Your task to perform on an android device: Search for razer deathadder on newegg.com, select the first entry, add it to the cart, then select checkout. Image 0: 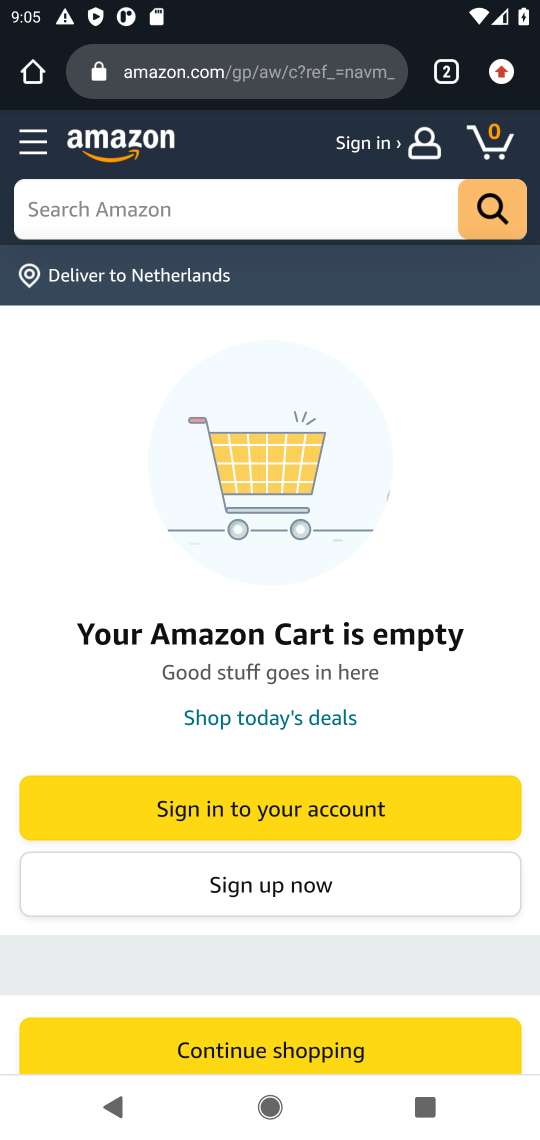
Step 0: click (200, 77)
Your task to perform on an android device: Search for razer deathadder on newegg.com, select the first entry, add it to the cart, then select checkout. Image 1: 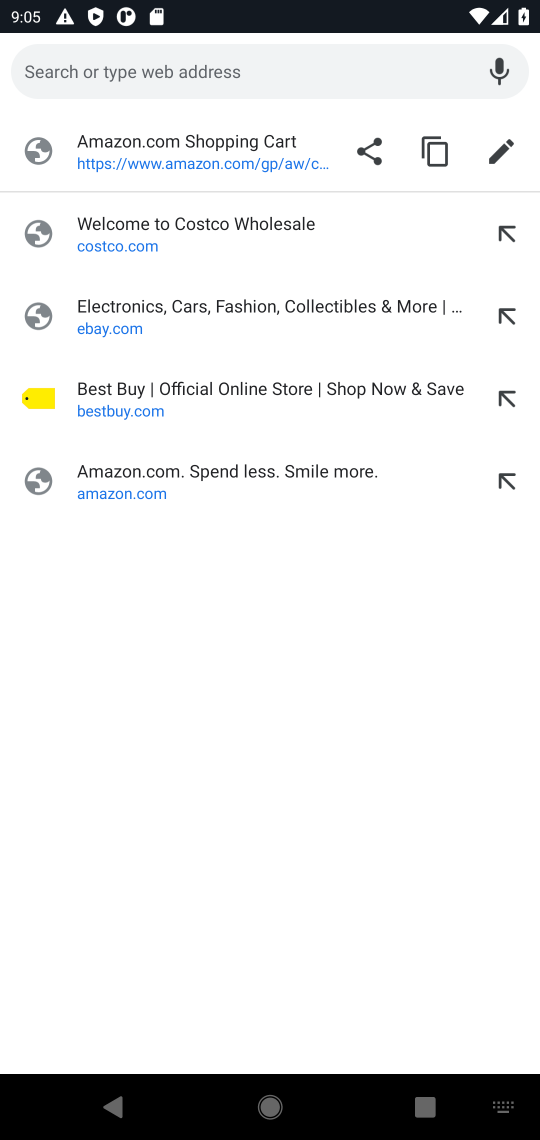
Step 1: type "newegg.com"
Your task to perform on an android device: Search for razer deathadder on newegg.com, select the first entry, add it to the cart, then select checkout. Image 2: 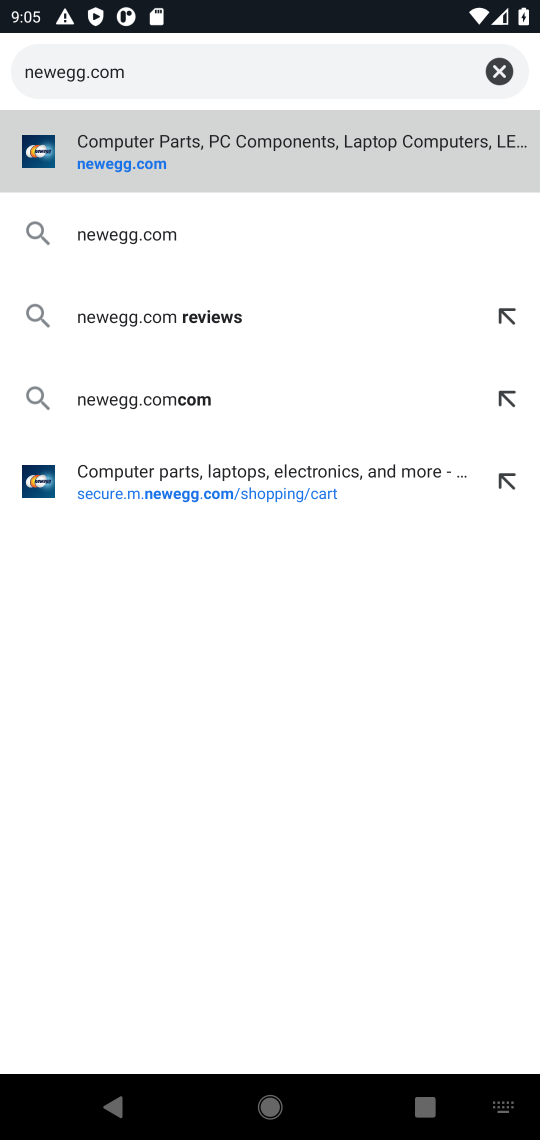
Step 2: click (100, 172)
Your task to perform on an android device: Search for razer deathadder on newegg.com, select the first entry, add it to the cart, then select checkout. Image 3: 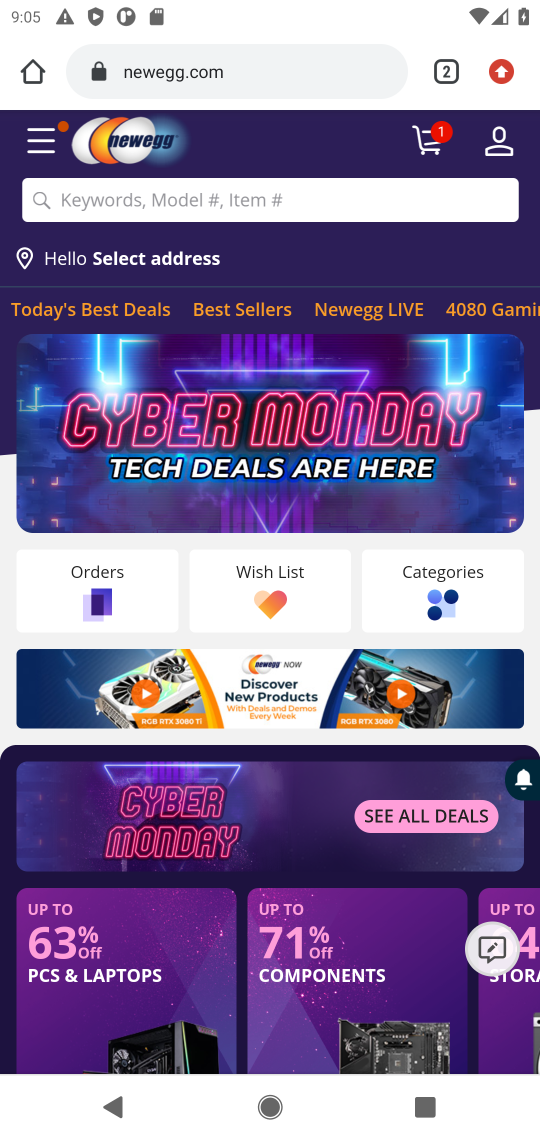
Step 3: click (129, 211)
Your task to perform on an android device: Search for razer deathadder on newegg.com, select the first entry, add it to the cart, then select checkout. Image 4: 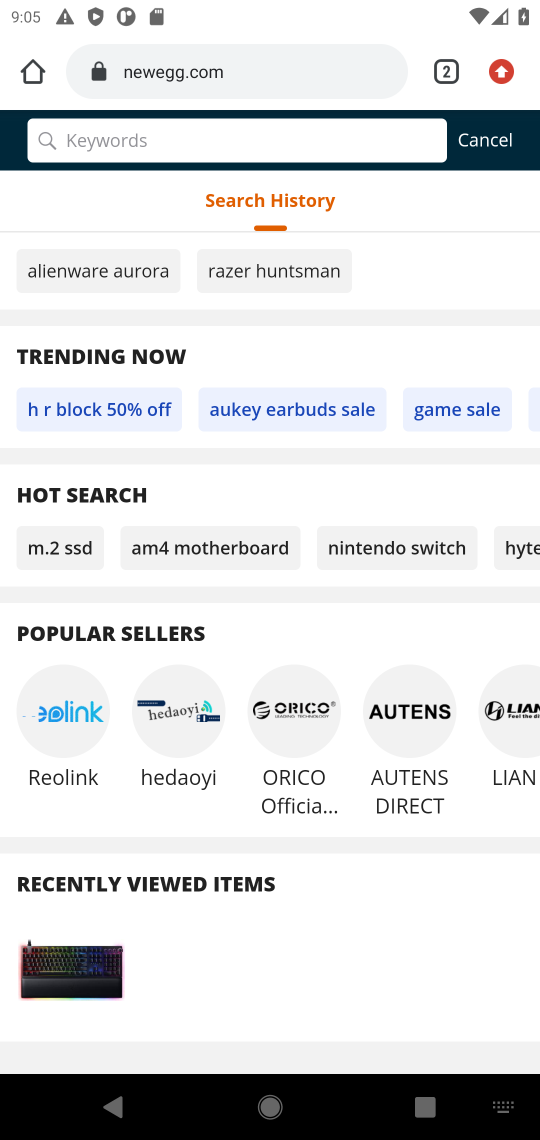
Step 4: type "razer deathadder"
Your task to perform on an android device: Search for razer deathadder on newegg.com, select the first entry, add it to the cart, then select checkout. Image 5: 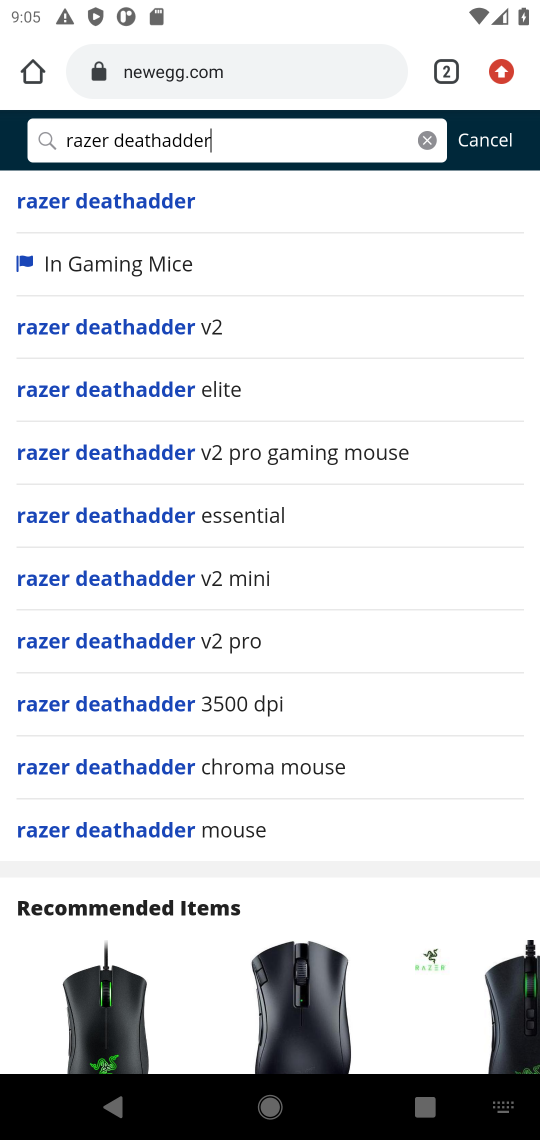
Step 5: click (117, 213)
Your task to perform on an android device: Search for razer deathadder on newegg.com, select the first entry, add it to the cart, then select checkout. Image 6: 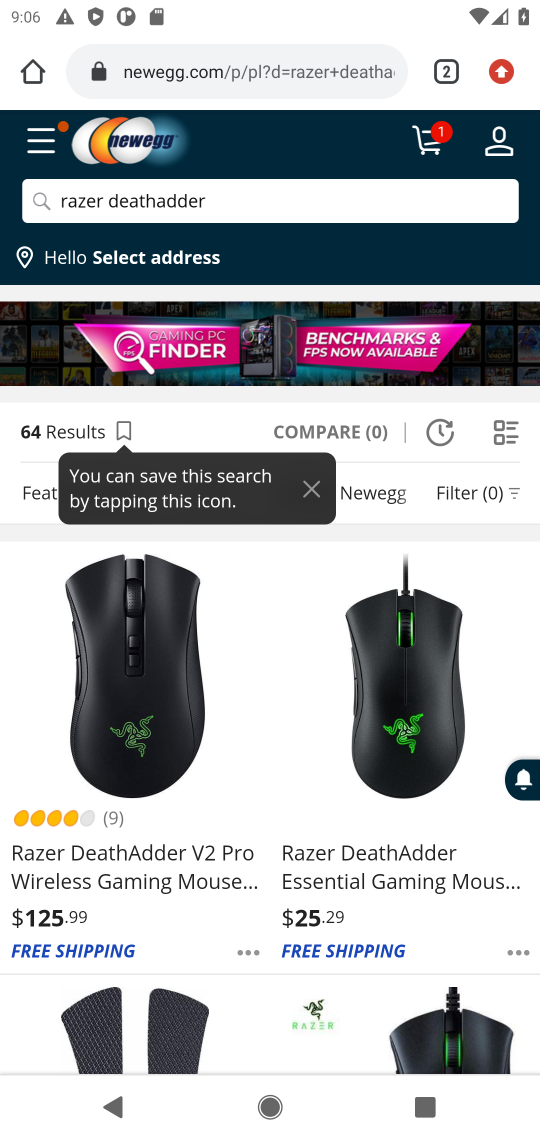
Step 6: drag from (216, 785) to (314, 453)
Your task to perform on an android device: Search for razer deathadder on newegg.com, select the first entry, add it to the cart, then select checkout. Image 7: 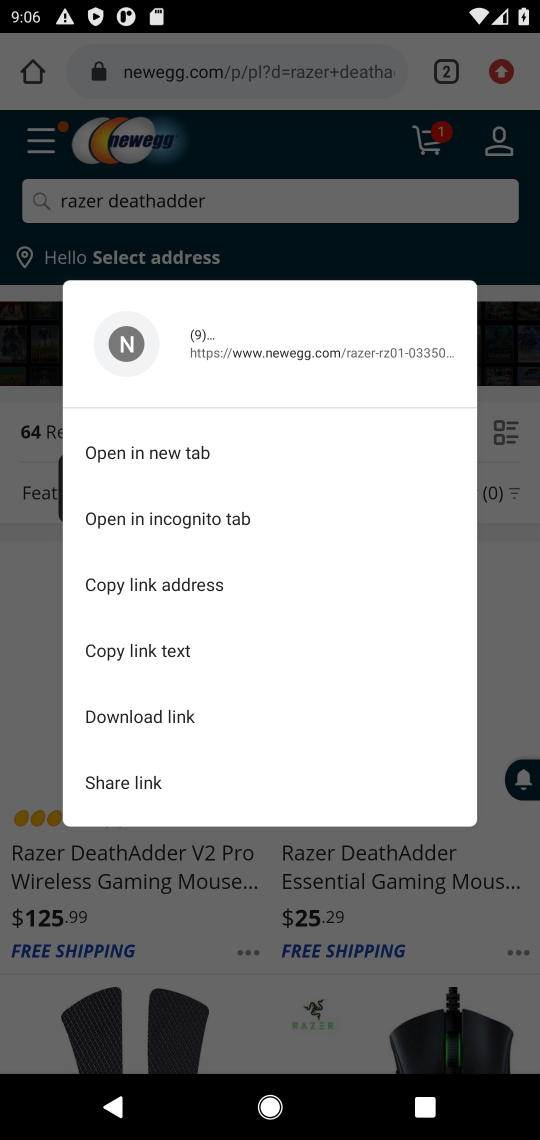
Step 7: click (8, 691)
Your task to perform on an android device: Search for razer deathadder on newegg.com, select the first entry, add it to the cart, then select checkout. Image 8: 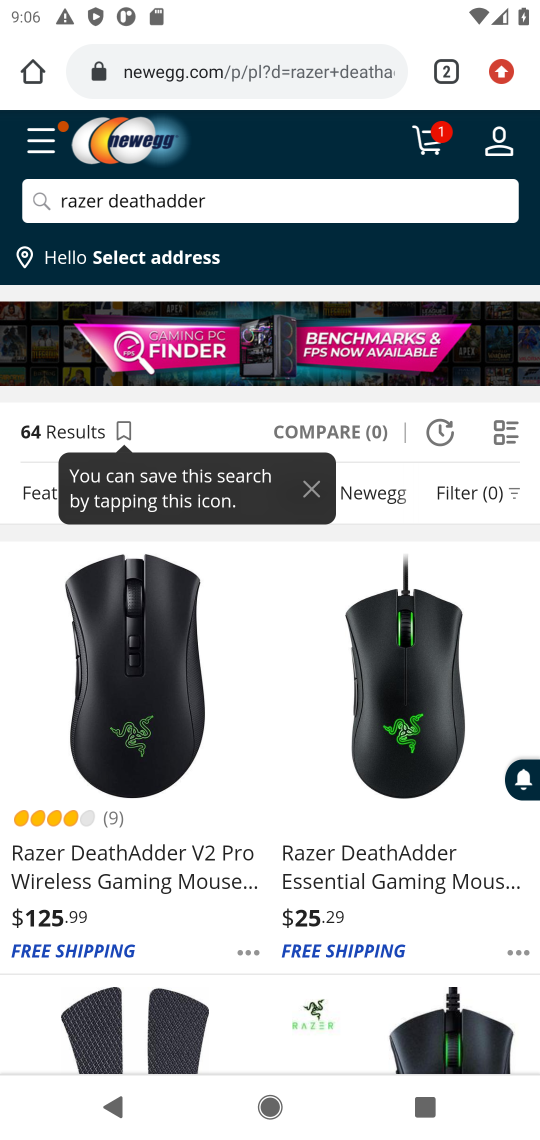
Step 8: click (145, 733)
Your task to perform on an android device: Search for razer deathadder on newegg.com, select the first entry, add it to the cart, then select checkout. Image 9: 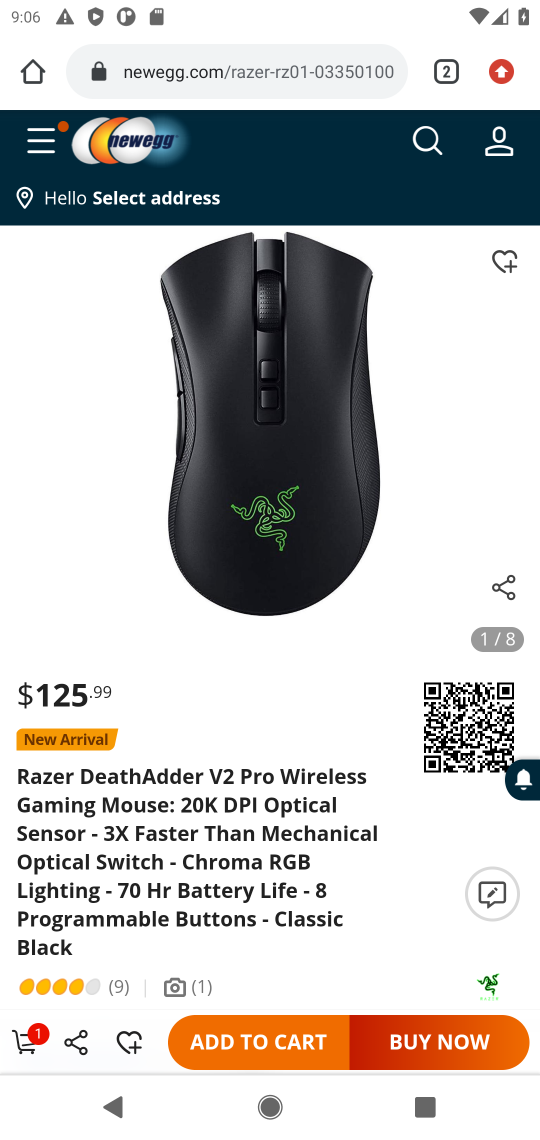
Step 9: click (258, 1047)
Your task to perform on an android device: Search for razer deathadder on newegg.com, select the first entry, add it to the cart, then select checkout. Image 10: 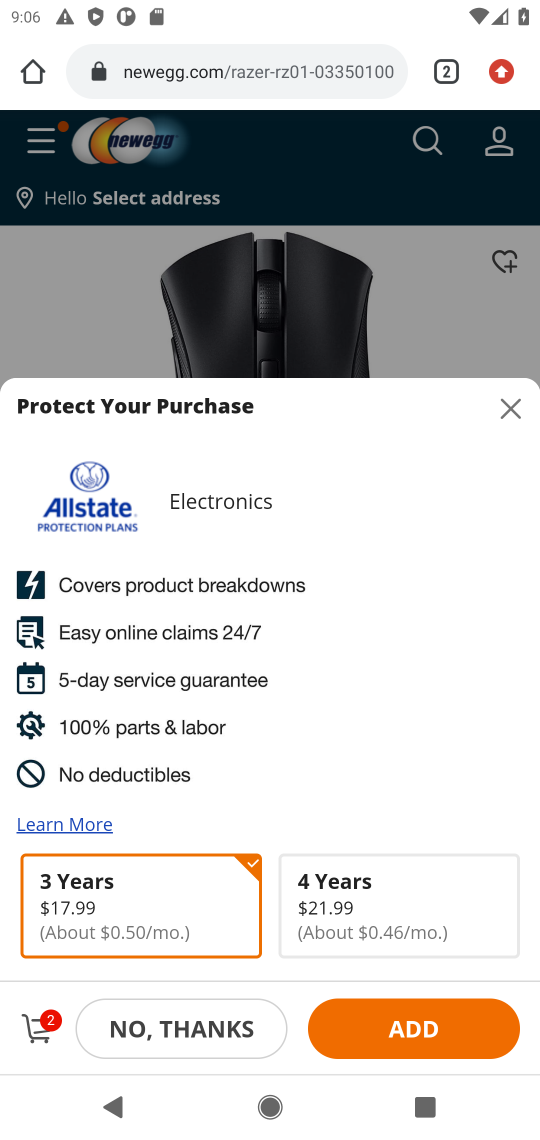
Step 10: click (47, 1030)
Your task to perform on an android device: Search for razer deathadder on newegg.com, select the first entry, add it to the cart, then select checkout. Image 11: 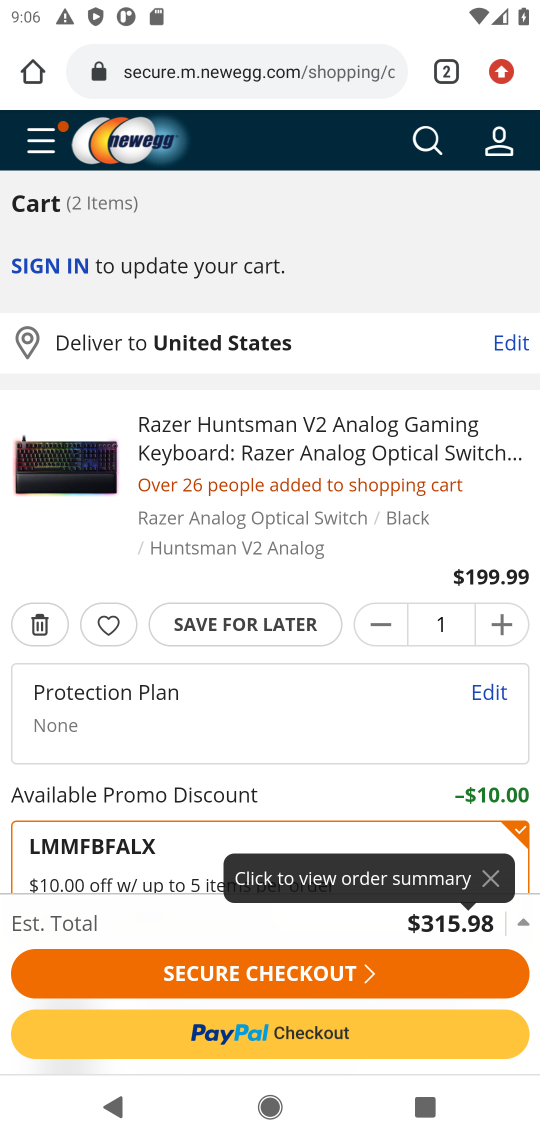
Step 11: click (246, 968)
Your task to perform on an android device: Search for razer deathadder on newegg.com, select the first entry, add it to the cart, then select checkout. Image 12: 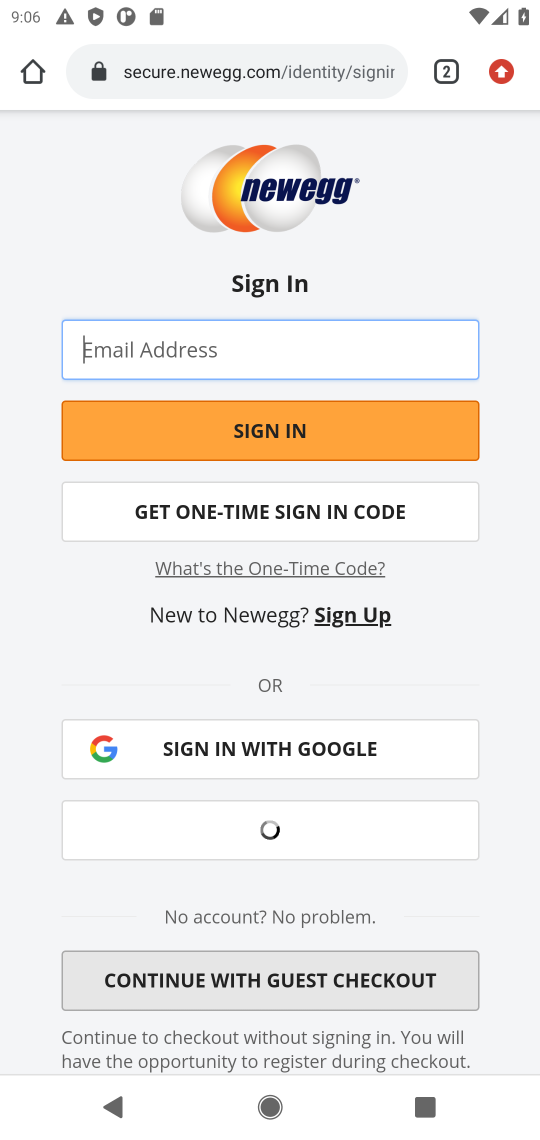
Step 12: task complete